Your task to perform on an android device: Open sound settings Image 0: 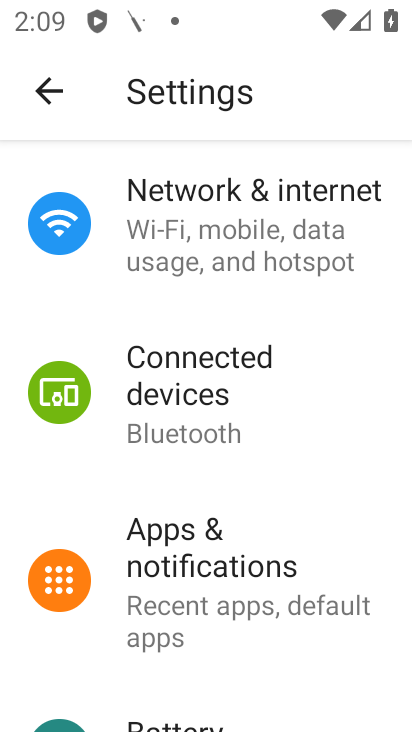
Step 0: drag from (277, 539) to (297, 305)
Your task to perform on an android device: Open sound settings Image 1: 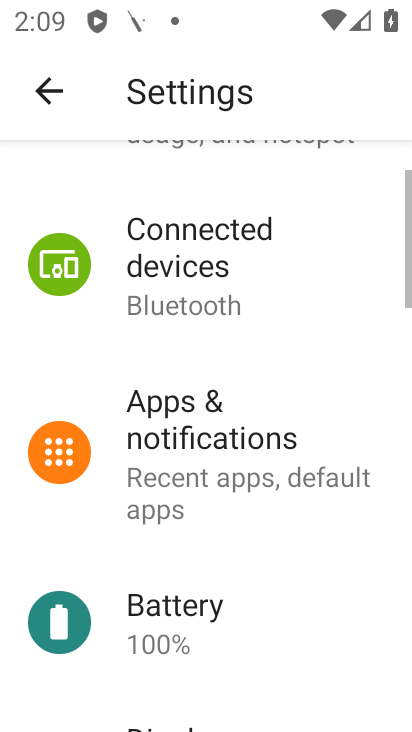
Step 1: drag from (264, 483) to (290, 350)
Your task to perform on an android device: Open sound settings Image 2: 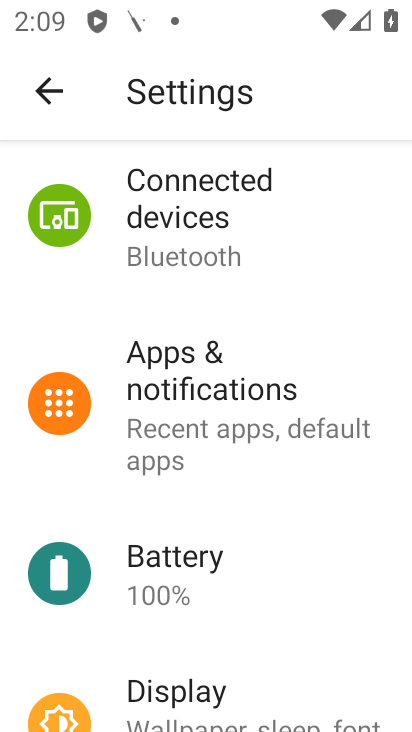
Step 2: drag from (240, 556) to (279, 312)
Your task to perform on an android device: Open sound settings Image 3: 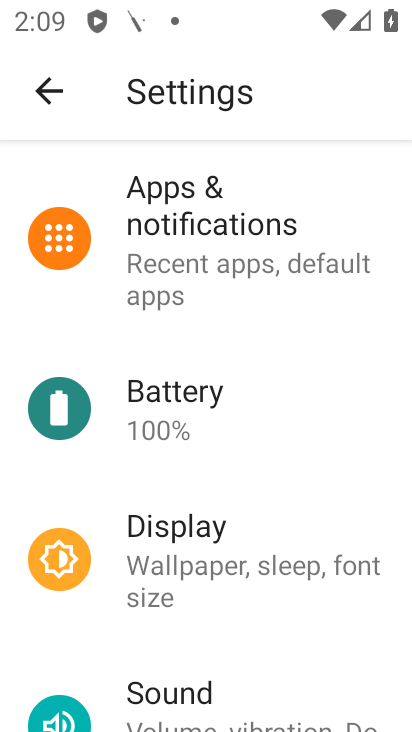
Step 3: click (197, 665)
Your task to perform on an android device: Open sound settings Image 4: 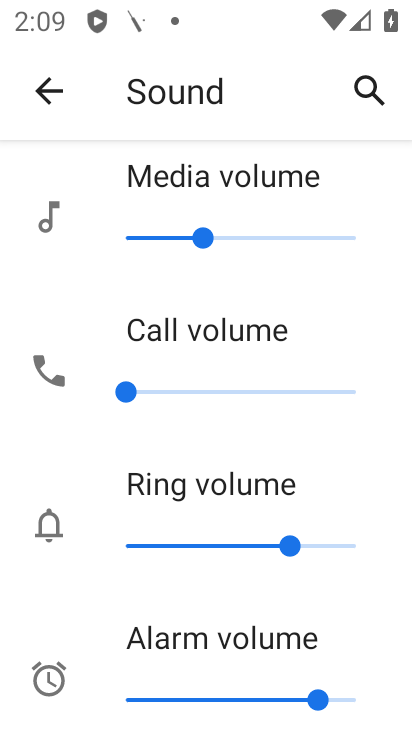
Step 4: task complete